Your task to perform on an android device: Install the ESPN app Image 0: 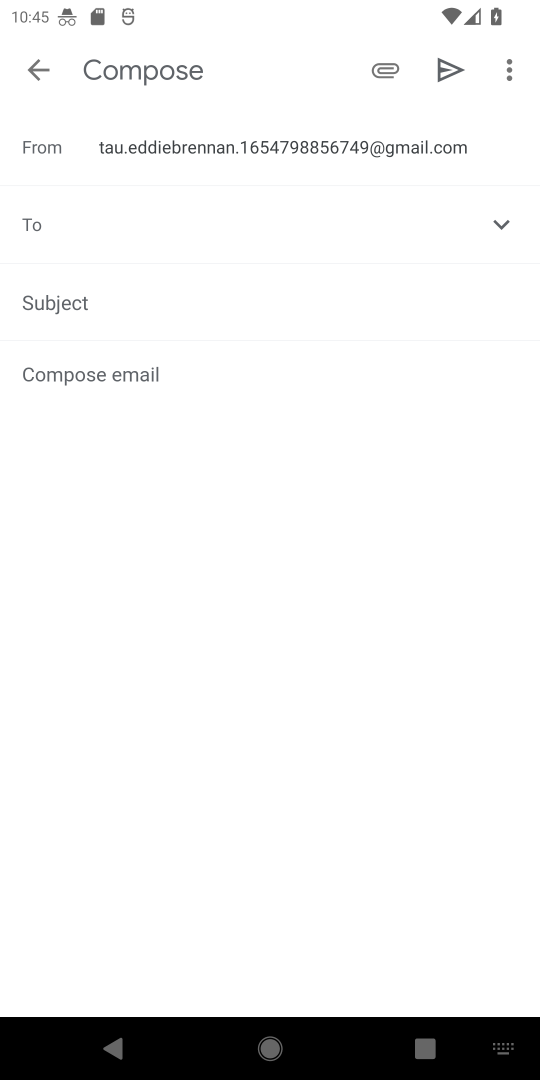
Step 0: press home button
Your task to perform on an android device: Install the ESPN app Image 1: 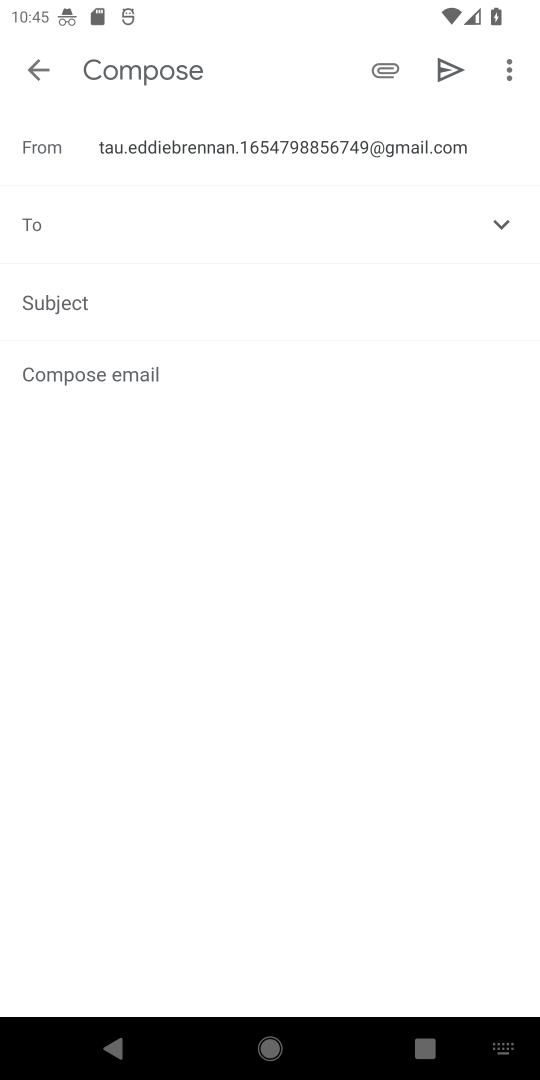
Step 1: press home button
Your task to perform on an android device: Install the ESPN app Image 2: 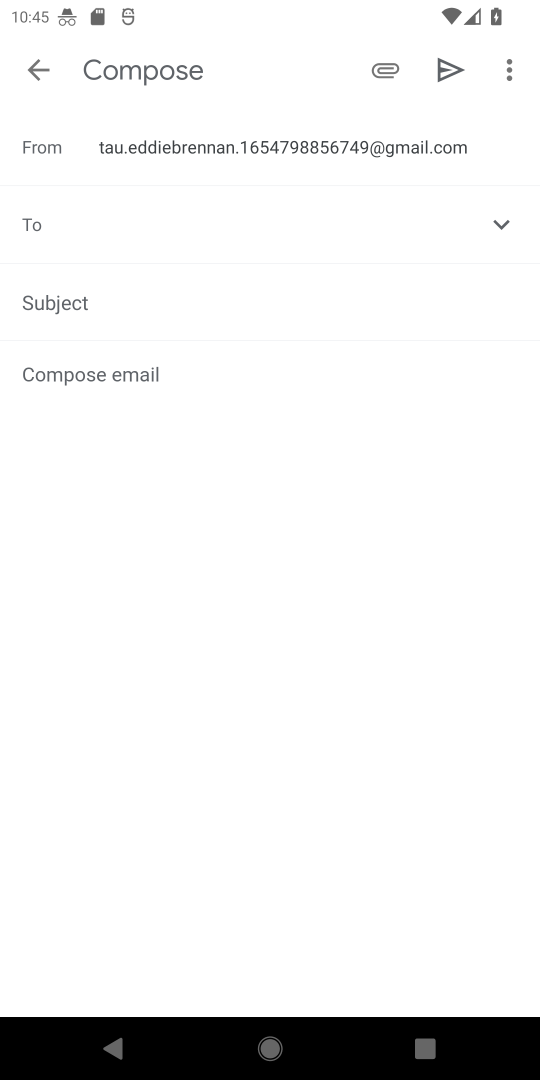
Step 2: press home button
Your task to perform on an android device: Install the ESPN app Image 3: 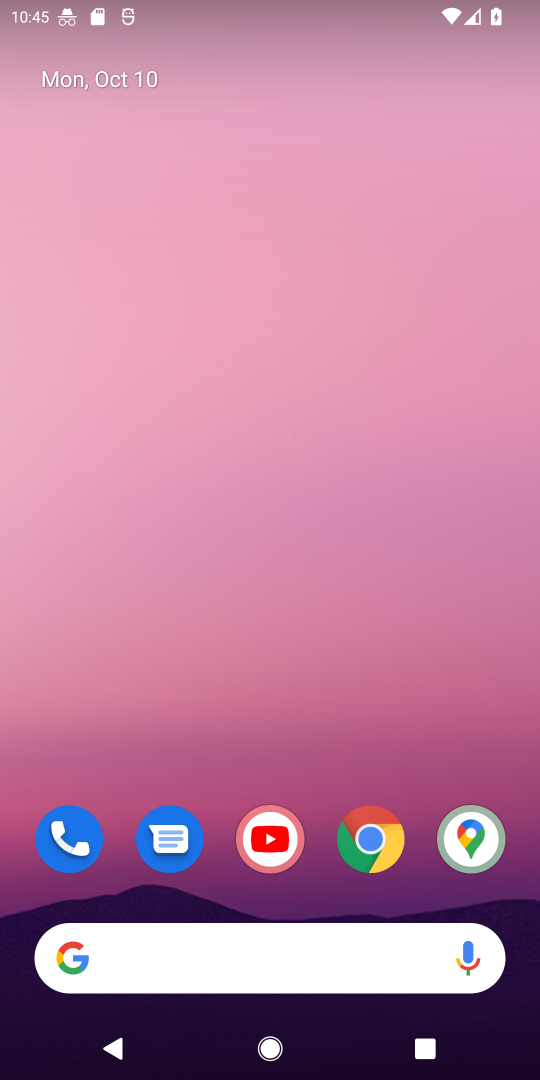
Step 3: drag from (338, 901) to (341, 171)
Your task to perform on an android device: Install the ESPN app Image 4: 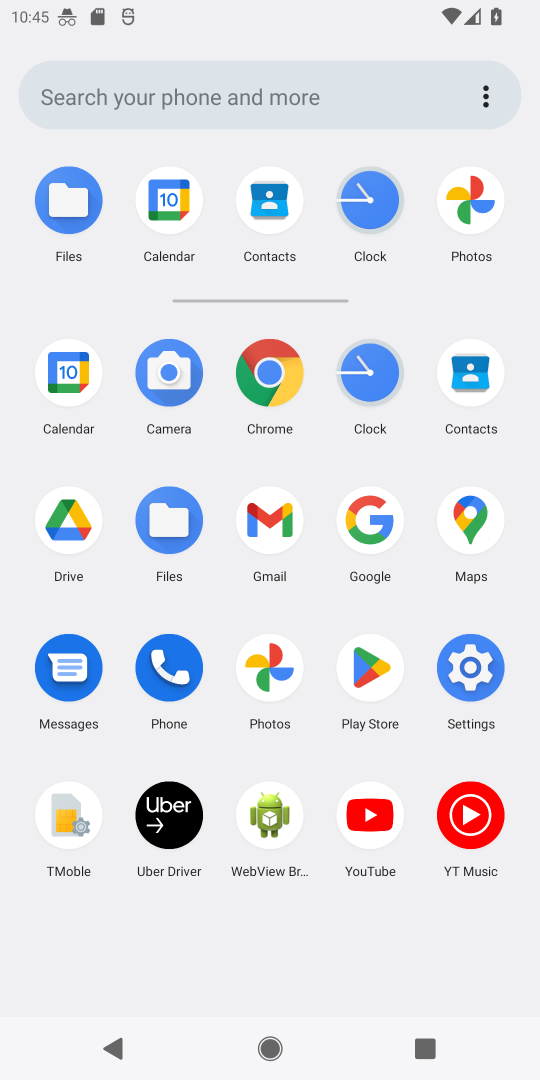
Step 4: click (372, 669)
Your task to perform on an android device: Install the ESPN app Image 5: 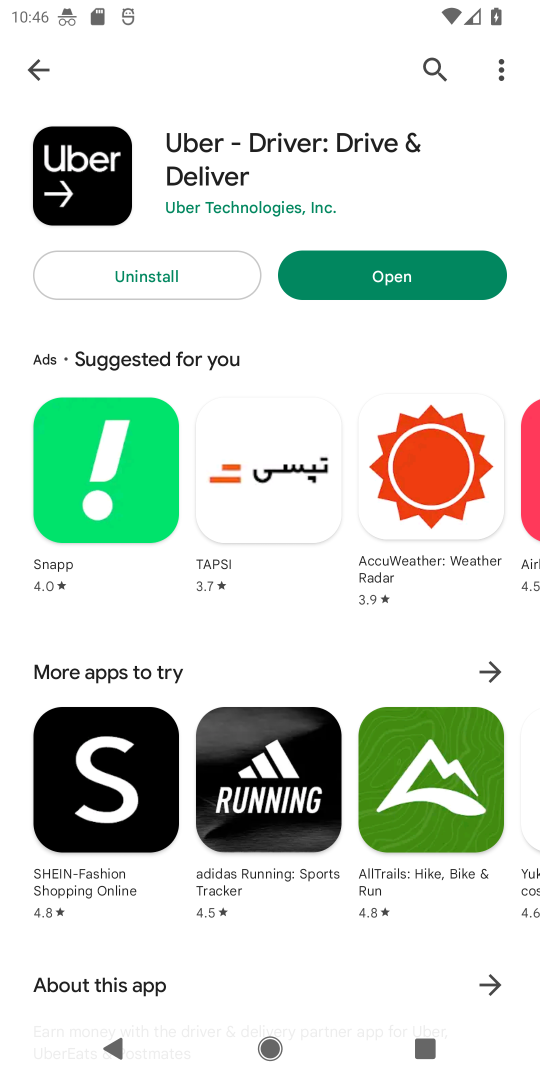
Step 5: click (445, 58)
Your task to perform on an android device: Install the ESPN app Image 6: 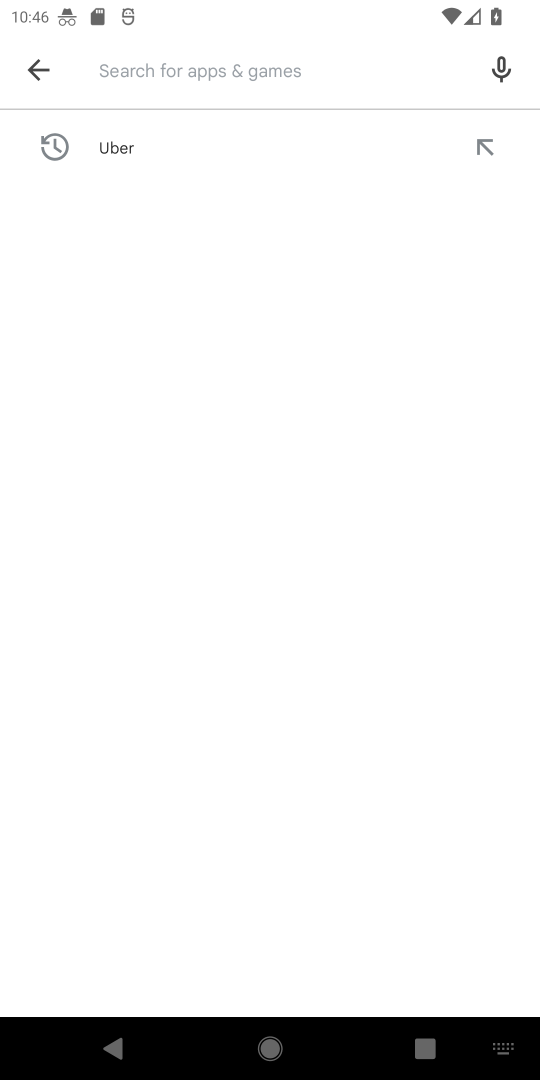
Step 6: type "ESPN"
Your task to perform on an android device: Install the ESPN app Image 7: 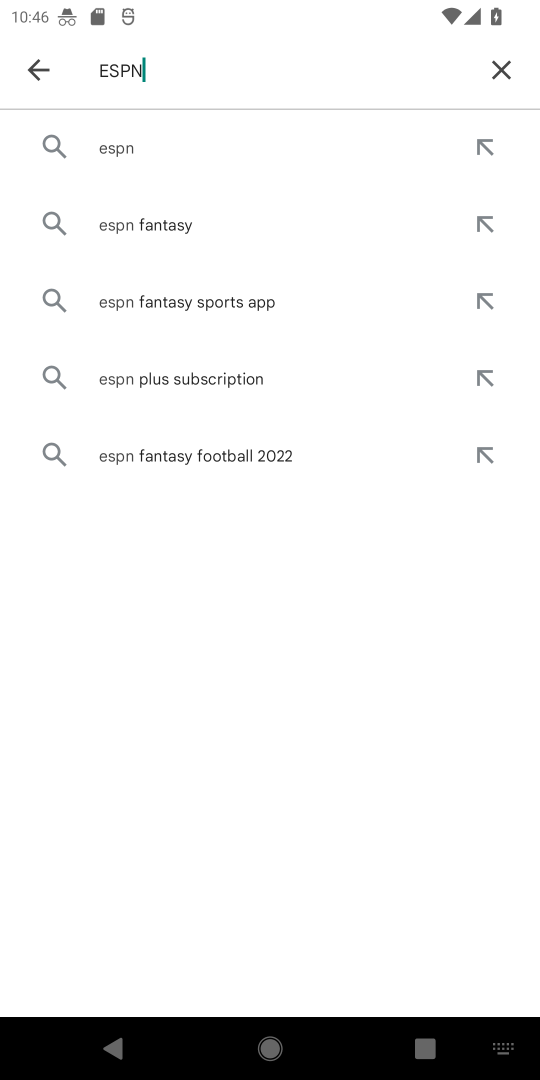
Step 7: press enter
Your task to perform on an android device: Install the ESPN app Image 8: 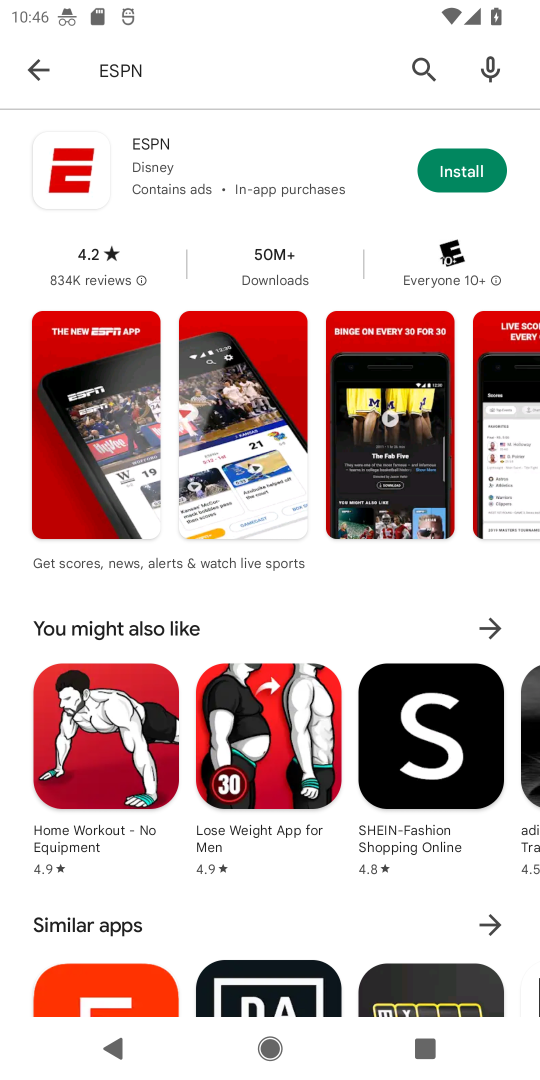
Step 8: click (466, 164)
Your task to perform on an android device: Install the ESPN app Image 9: 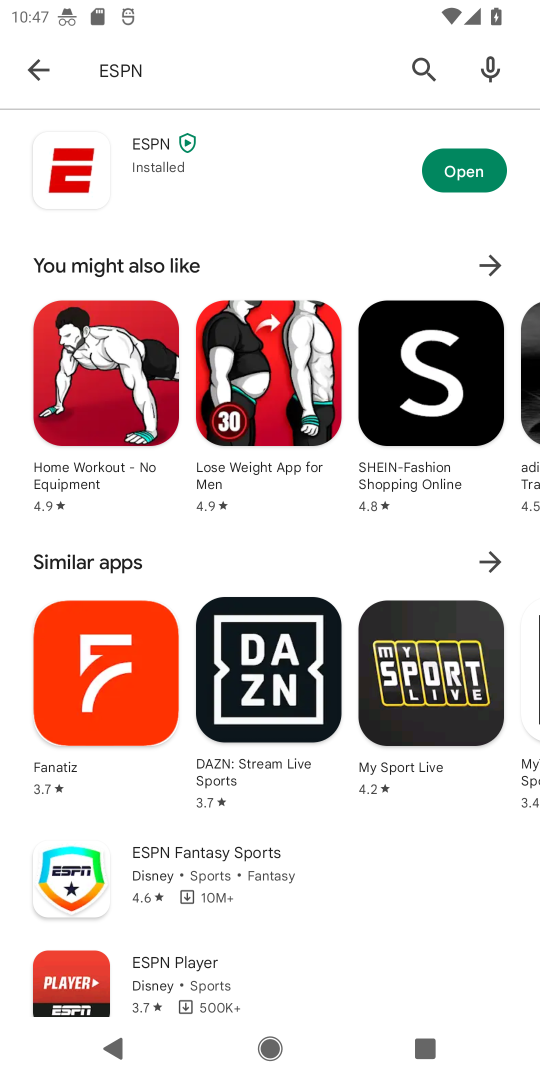
Step 9: task complete